Your task to perform on an android device: toggle show notifications on the lock screen Image 0: 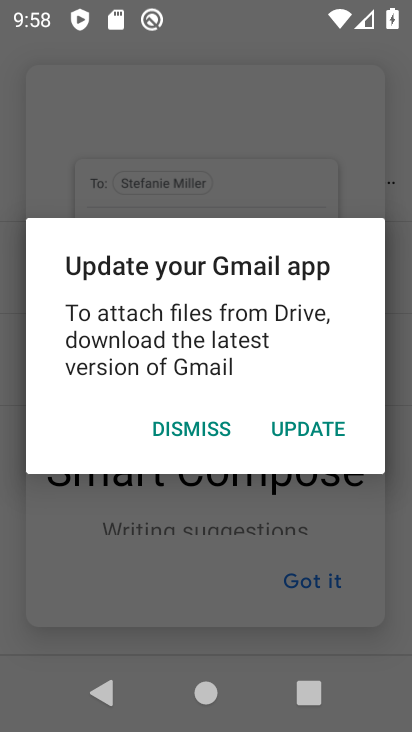
Step 0: press home button
Your task to perform on an android device: toggle show notifications on the lock screen Image 1: 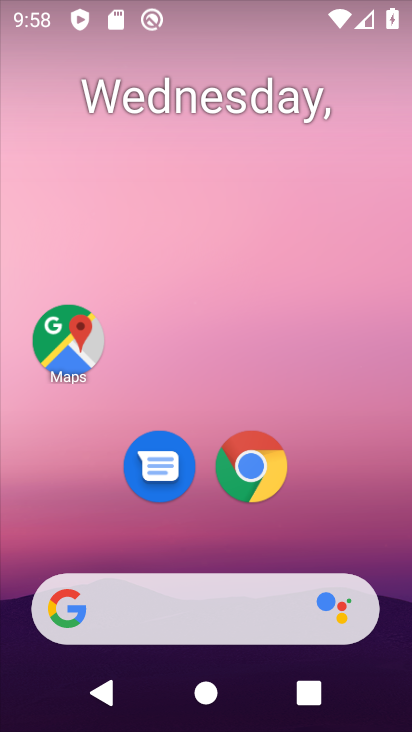
Step 1: drag from (233, 724) to (251, 150)
Your task to perform on an android device: toggle show notifications on the lock screen Image 2: 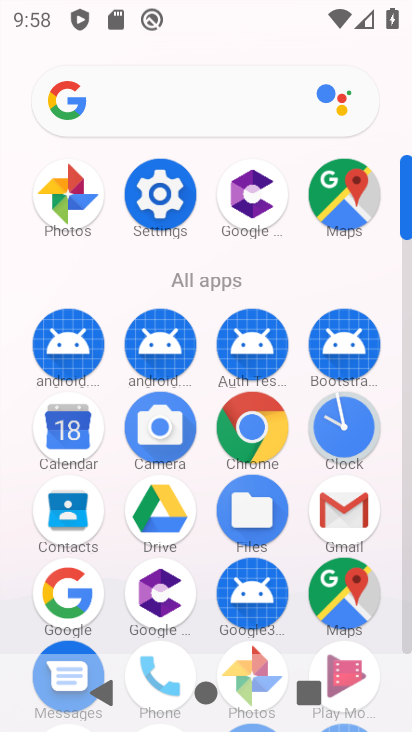
Step 2: click (159, 197)
Your task to perform on an android device: toggle show notifications on the lock screen Image 3: 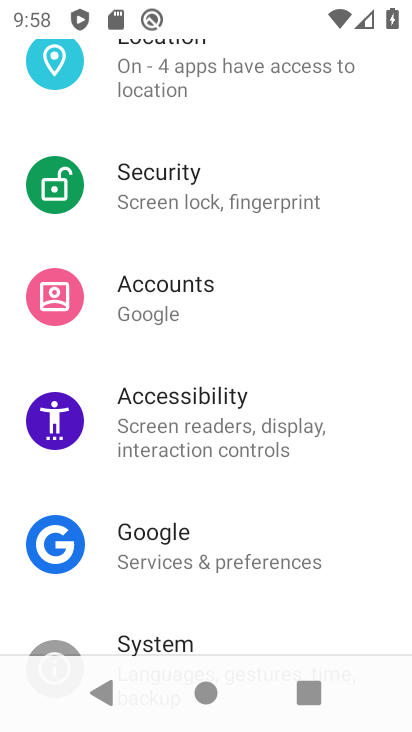
Step 3: drag from (258, 135) to (246, 451)
Your task to perform on an android device: toggle show notifications on the lock screen Image 4: 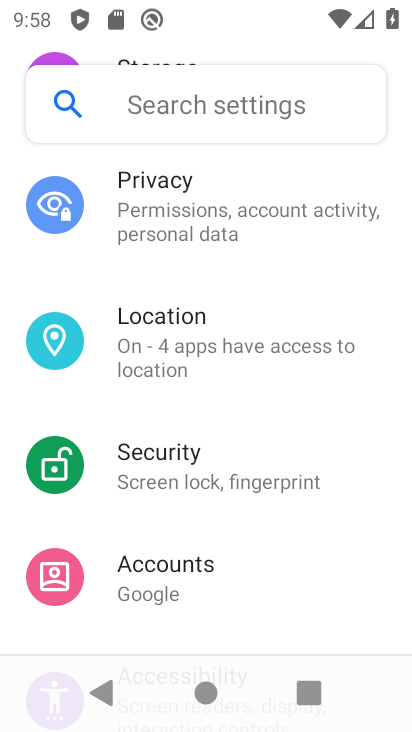
Step 4: drag from (248, 206) to (260, 461)
Your task to perform on an android device: toggle show notifications on the lock screen Image 5: 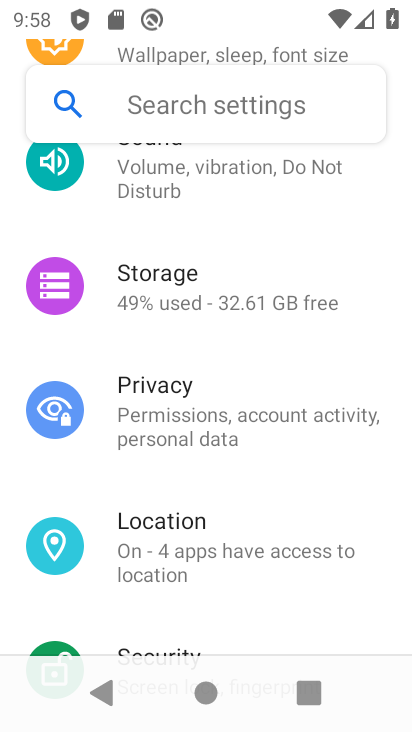
Step 5: drag from (226, 185) to (232, 544)
Your task to perform on an android device: toggle show notifications on the lock screen Image 6: 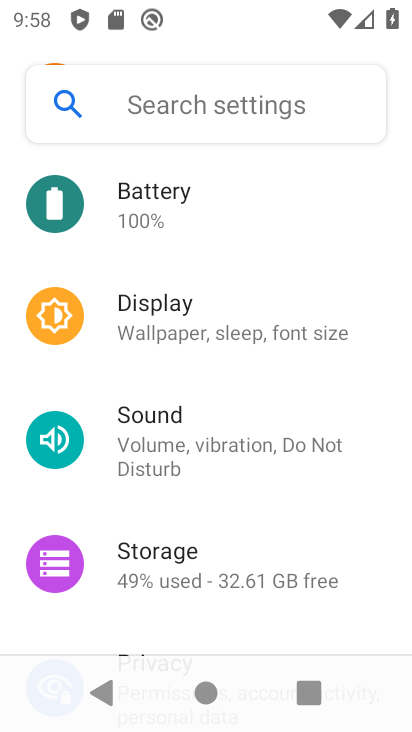
Step 6: drag from (249, 215) to (270, 517)
Your task to perform on an android device: toggle show notifications on the lock screen Image 7: 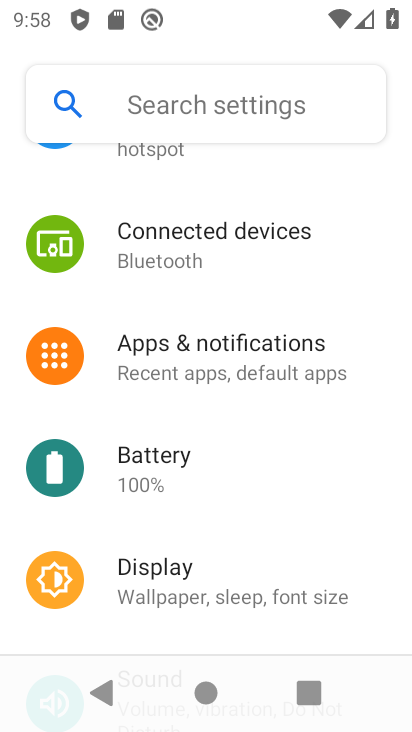
Step 7: click (236, 352)
Your task to perform on an android device: toggle show notifications on the lock screen Image 8: 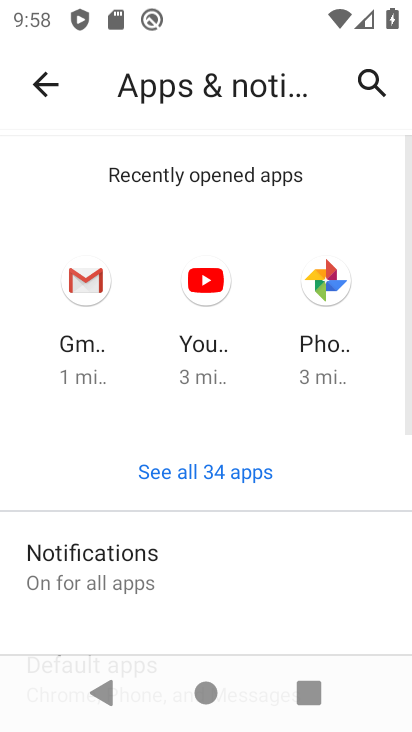
Step 8: drag from (222, 612) to (256, 236)
Your task to perform on an android device: toggle show notifications on the lock screen Image 9: 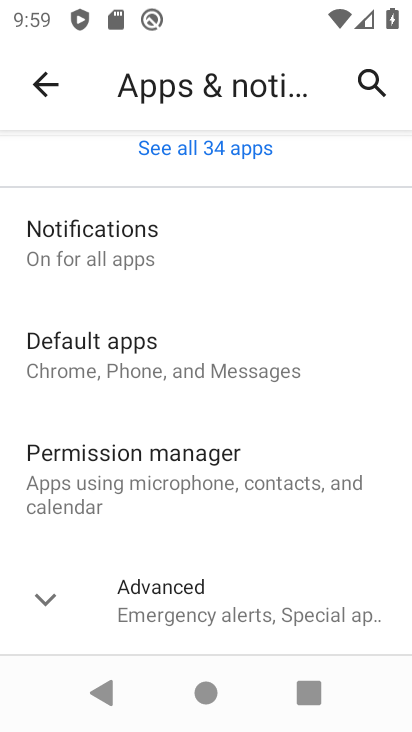
Step 9: click (94, 236)
Your task to perform on an android device: toggle show notifications on the lock screen Image 10: 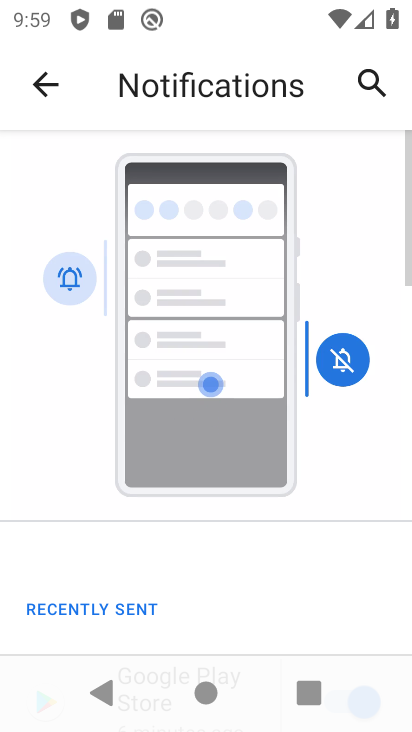
Step 10: drag from (192, 629) to (222, 217)
Your task to perform on an android device: toggle show notifications on the lock screen Image 11: 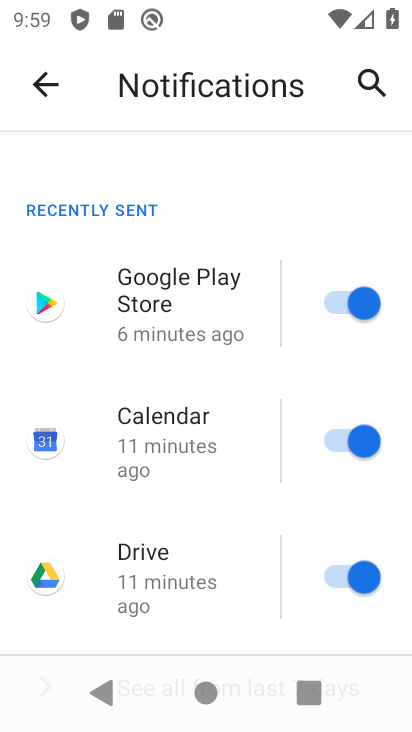
Step 11: drag from (215, 586) to (216, 267)
Your task to perform on an android device: toggle show notifications on the lock screen Image 12: 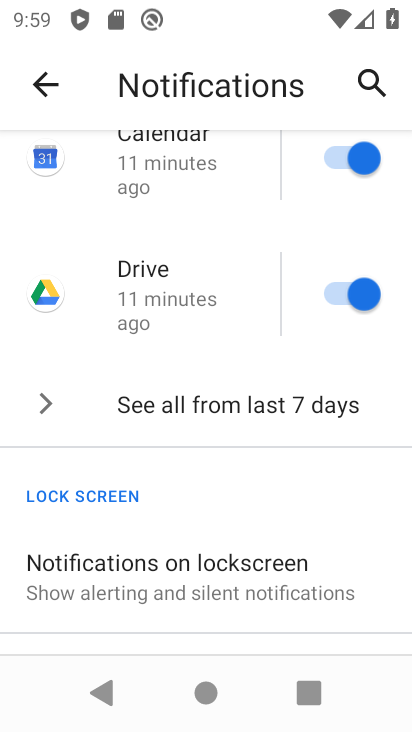
Step 12: click (179, 581)
Your task to perform on an android device: toggle show notifications on the lock screen Image 13: 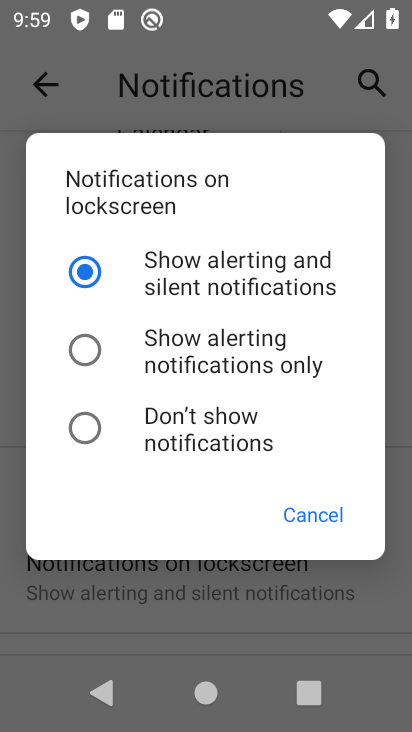
Step 13: click (85, 348)
Your task to perform on an android device: toggle show notifications on the lock screen Image 14: 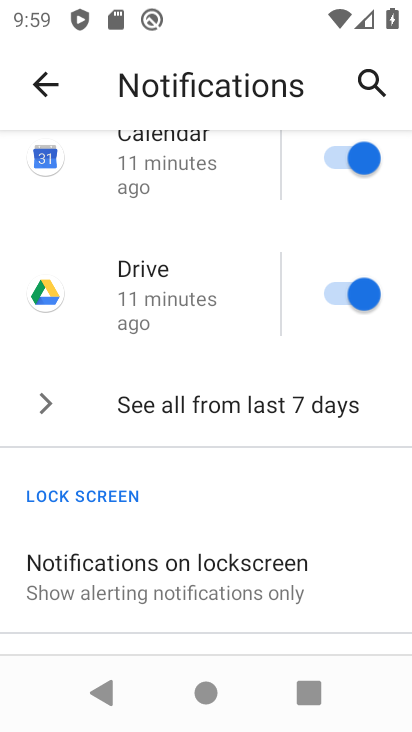
Step 14: task complete